Your task to perform on an android device: Set an alarm for 1pm Image 0: 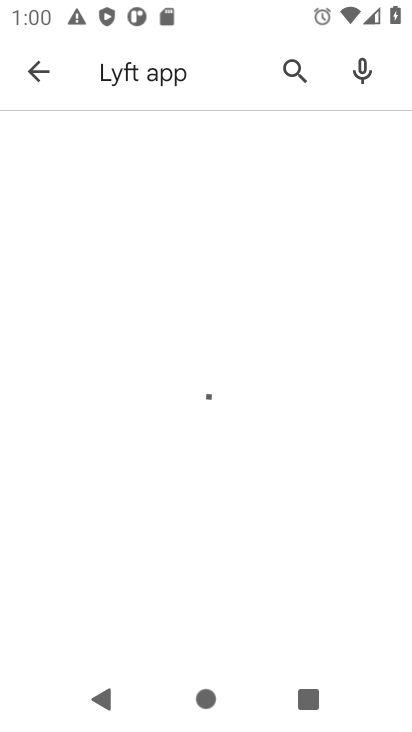
Step 0: press home button
Your task to perform on an android device: Set an alarm for 1pm Image 1: 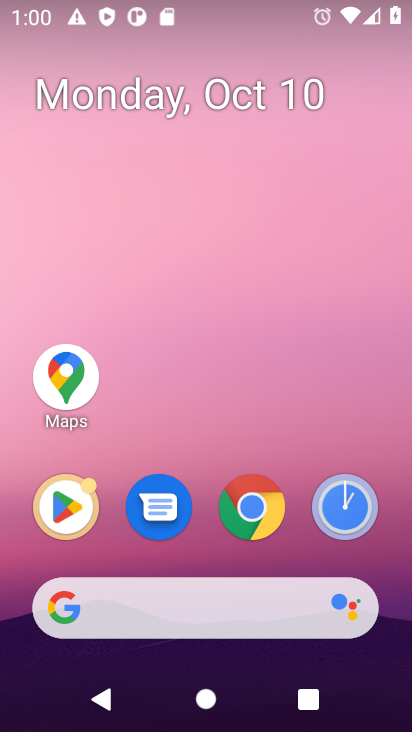
Step 1: drag from (397, 567) to (382, 173)
Your task to perform on an android device: Set an alarm for 1pm Image 2: 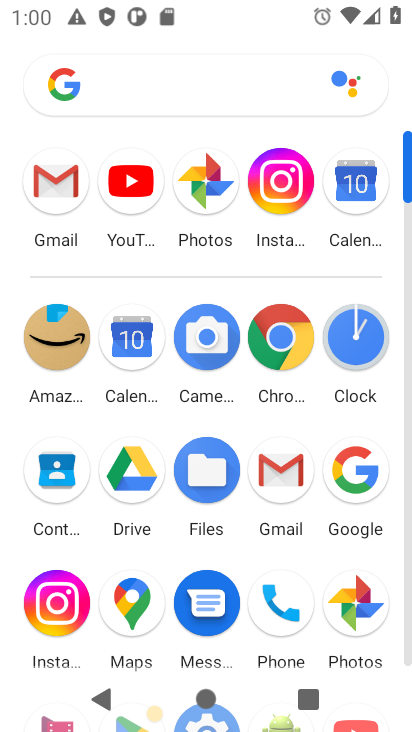
Step 2: click (363, 354)
Your task to perform on an android device: Set an alarm for 1pm Image 3: 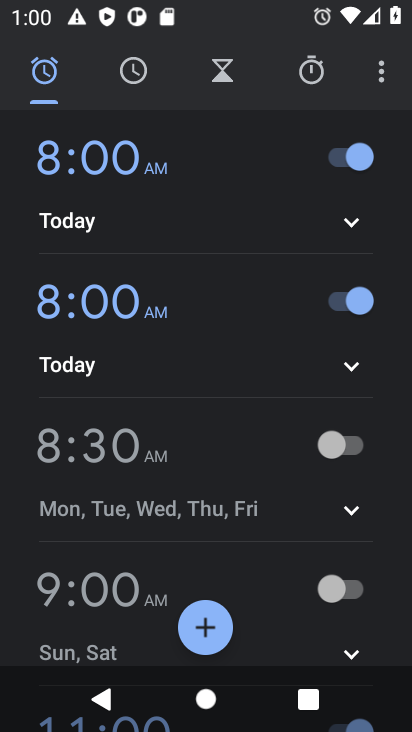
Step 3: click (202, 647)
Your task to perform on an android device: Set an alarm for 1pm Image 4: 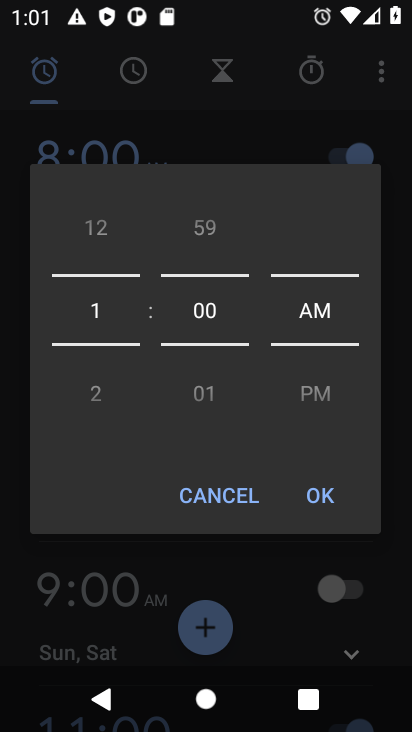
Step 4: drag from (311, 339) to (318, 214)
Your task to perform on an android device: Set an alarm for 1pm Image 5: 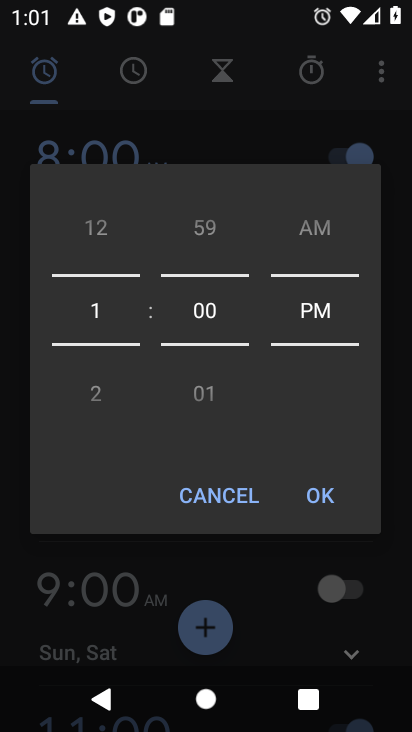
Step 5: click (317, 505)
Your task to perform on an android device: Set an alarm for 1pm Image 6: 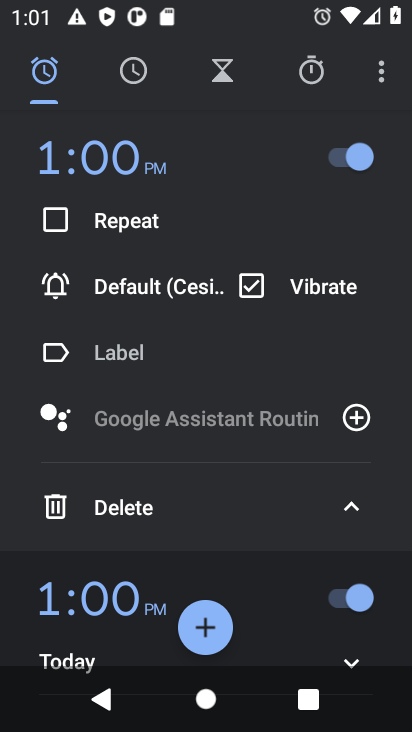
Step 6: task complete